Your task to perform on an android device: Empty the shopping cart on bestbuy. Image 0: 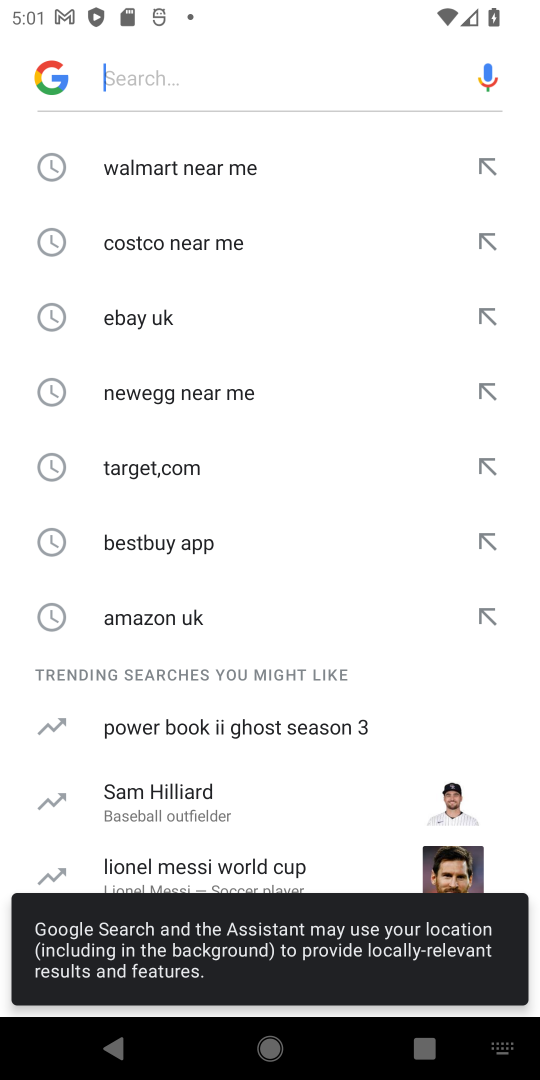
Step 0: press home button
Your task to perform on an android device: Empty the shopping cart on bestbuy. Image 1: 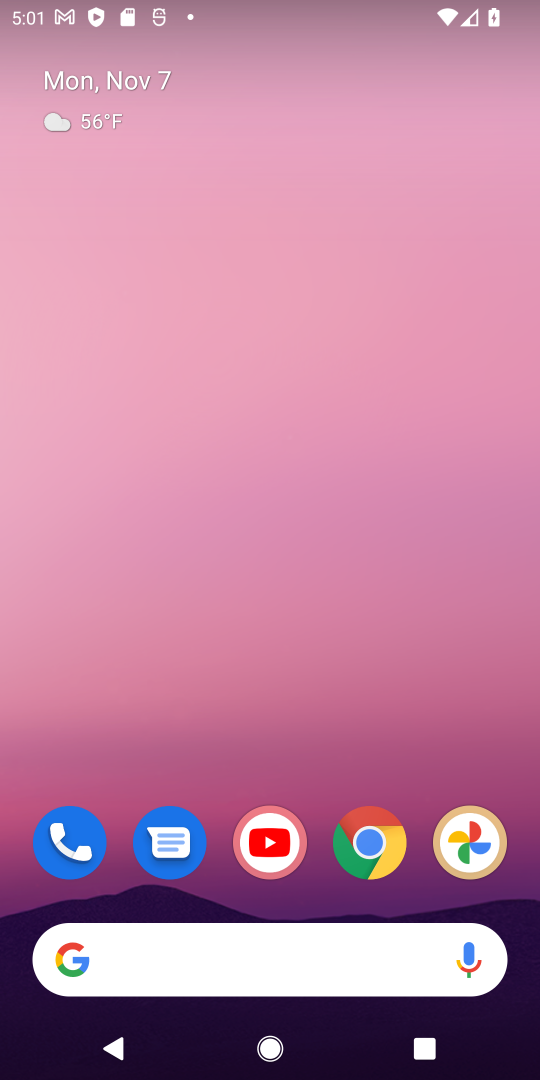
Step 1: click (100, 967)
Your task to perform on an android device: Empty the shopping cart on bestbuy. Image 2: 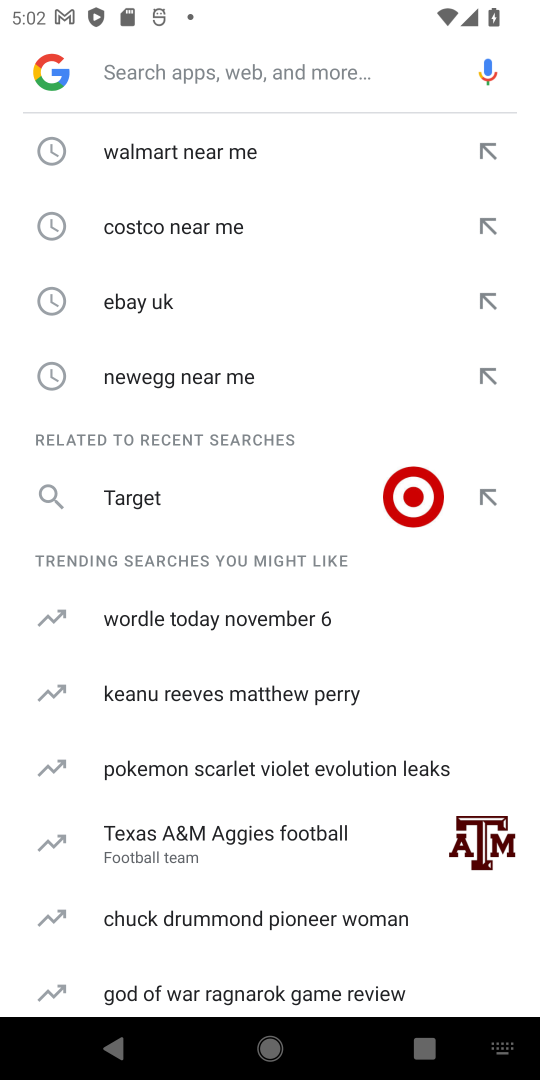
Step 2: type "bestbuy"
Your task to perform on an android device: Empty the shopping cart on bestbuy. Image 3: 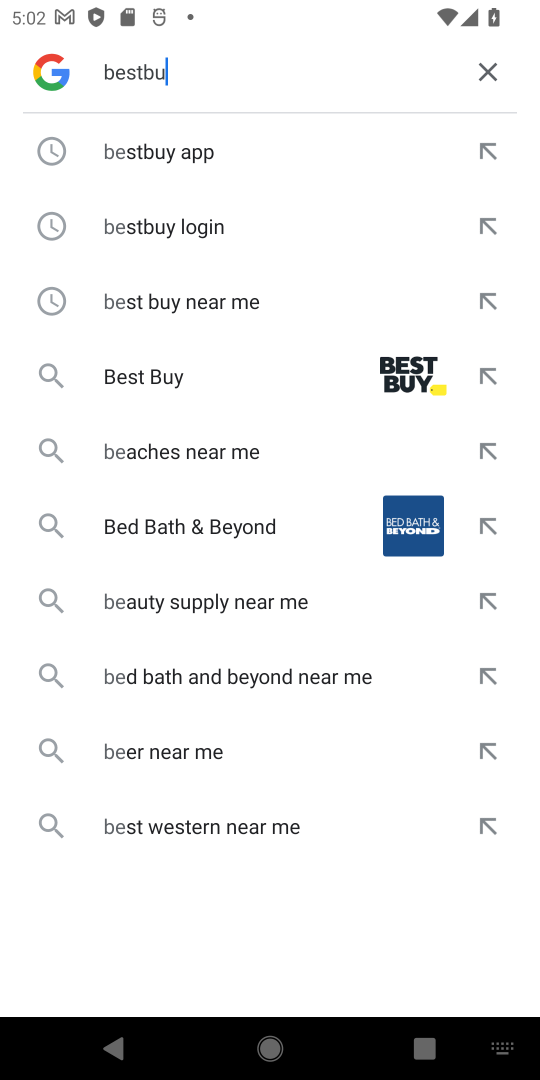
Step 3: press enter
Your task to perform on an android device: Empty the shopping cart on bestbuy. Image 4: 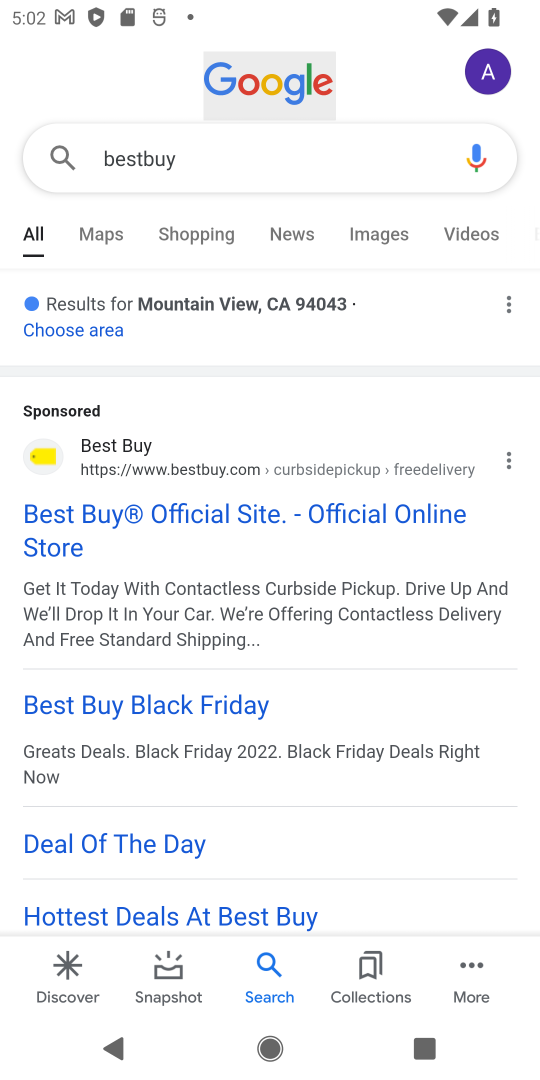
Step 4: click (200, 506)
Your task to perform on an android device: Empty the shopping cart on bestbuy. Image 5: 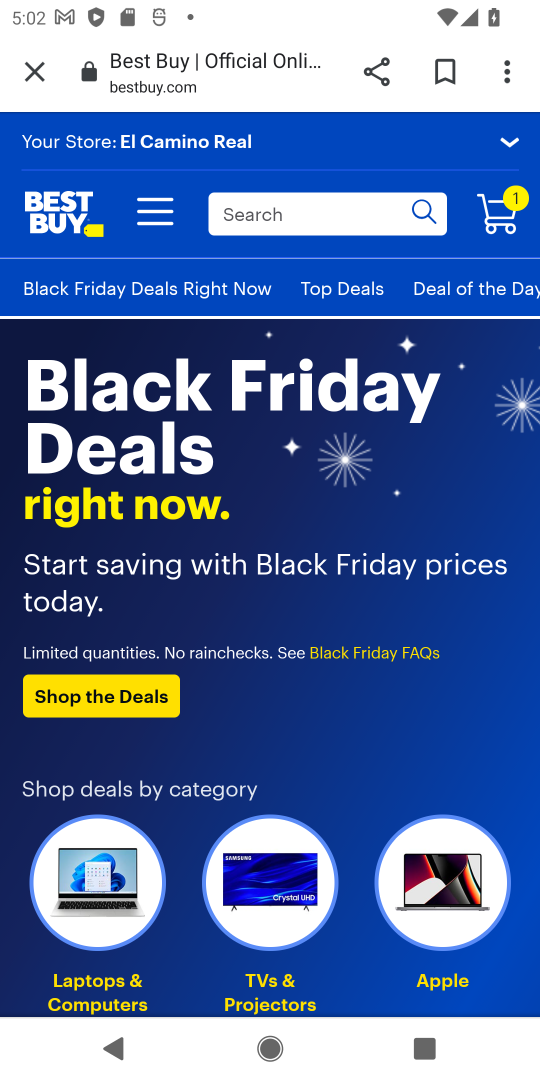
Step 5: click (496, 211)
Your task to perform on an android device: Empty the shopping cart on bestbuy. Image 6: 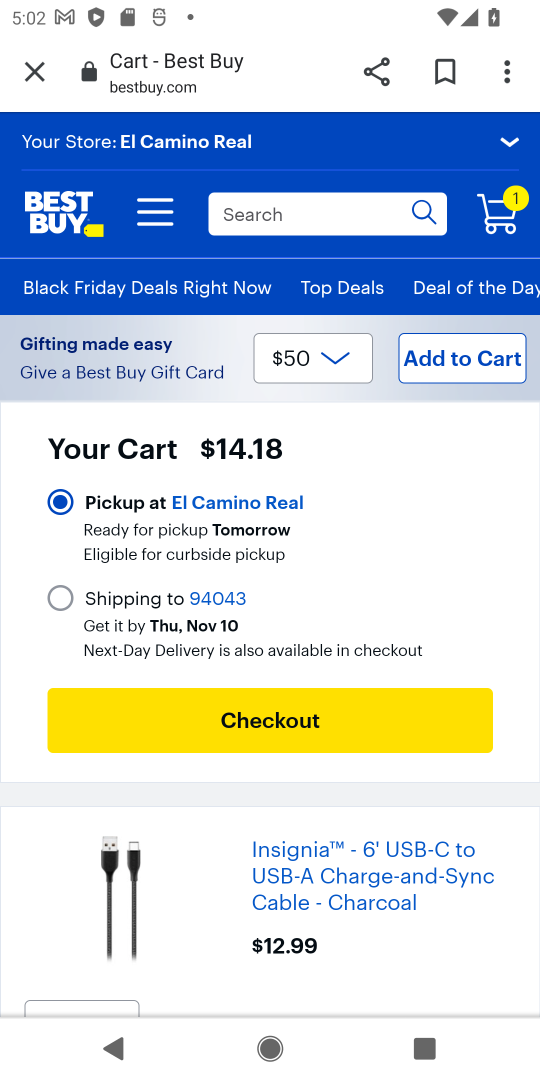
Step 6: drag from (205, 895) to (498, 26)
Your task to perform on an android device: Empty the shopping cart on bestbuy. Image 7: 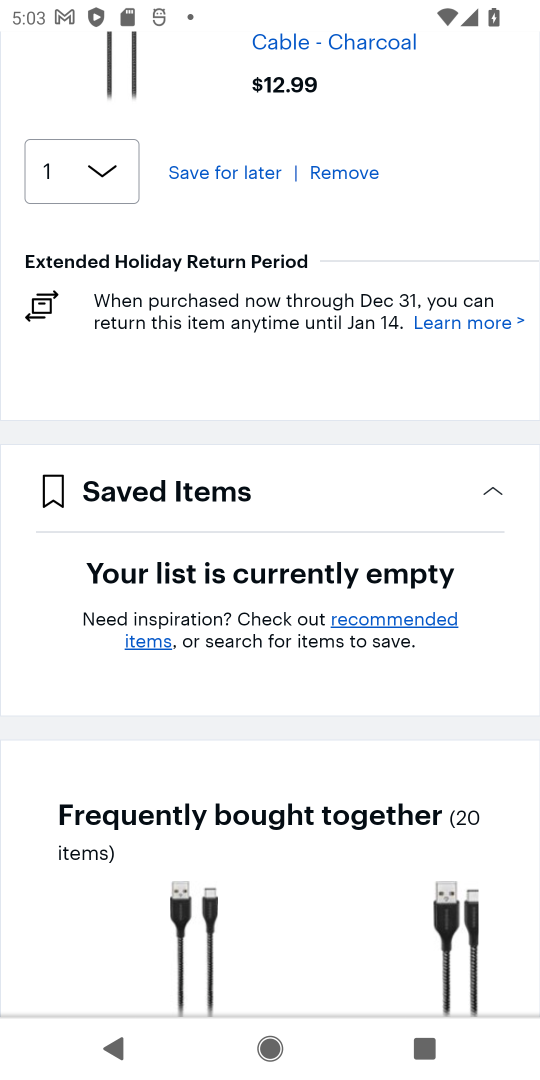
Step 7: drag from (432, 155) to (375, 321)
Your task to perform on an android device: Empty the shopping cart on bestbuy. Image 8: 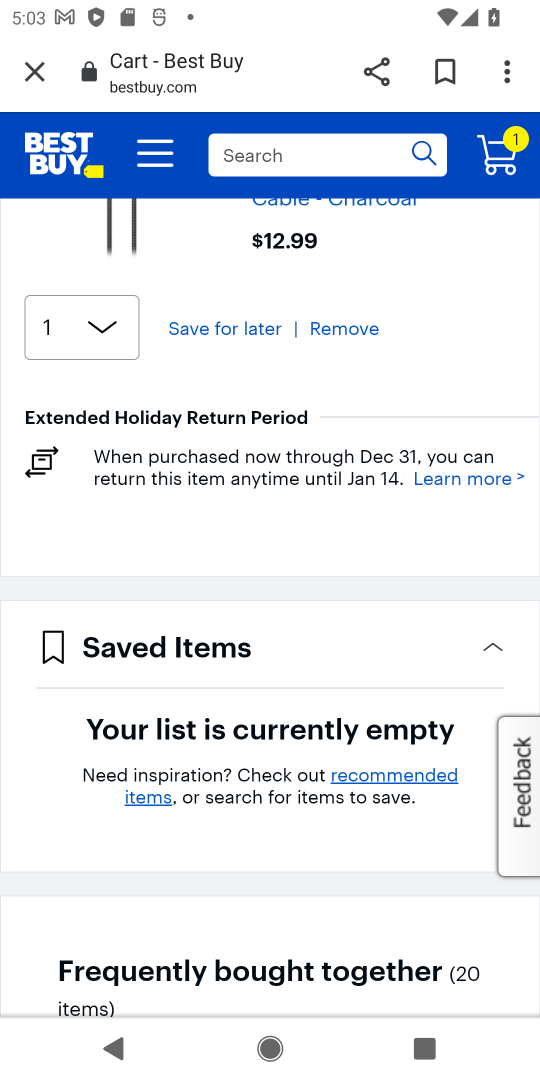
Step 8: click (342, 328)
Your task to perform on an android device: Empty the shopping cart on bestbuy. Image 9: 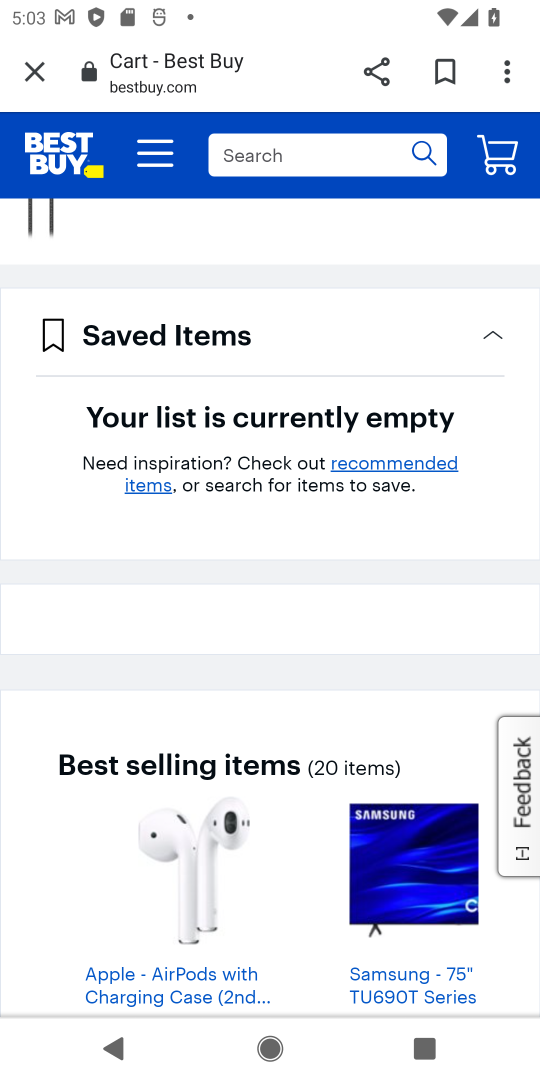
Step 9: task complete